Your task to perform on an android device: Open Google Chrome and open the bookmarks view Image 0: 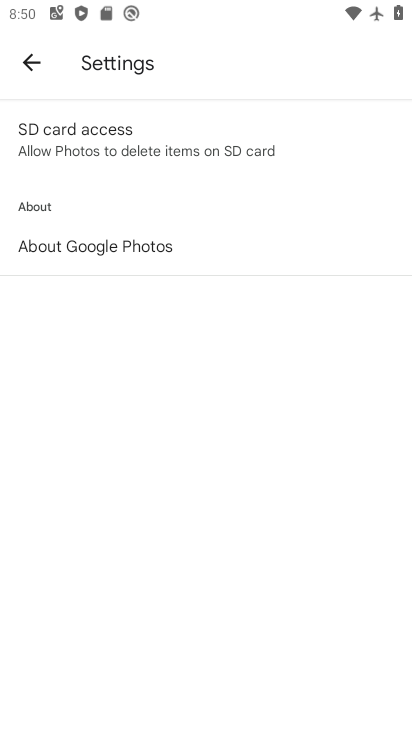
Step 0: press home button
Your task to perform on an android device: Open Google Chrome and open the bookmarks view Image 1: 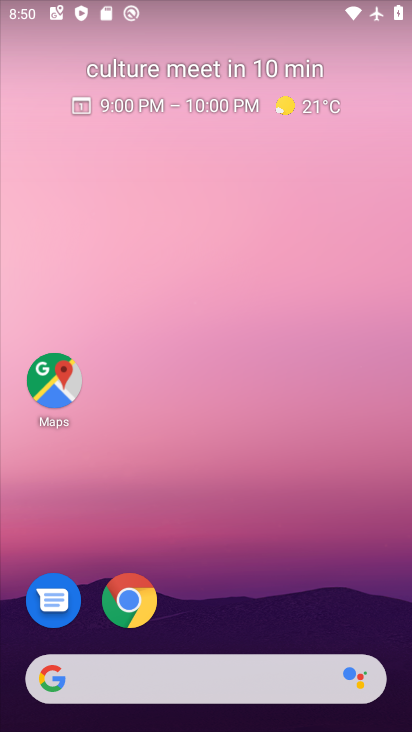
Step 1: click (129, 604)
Your task to perform on an android device: Open Google Chrome and open the bookmarks view Image 2: 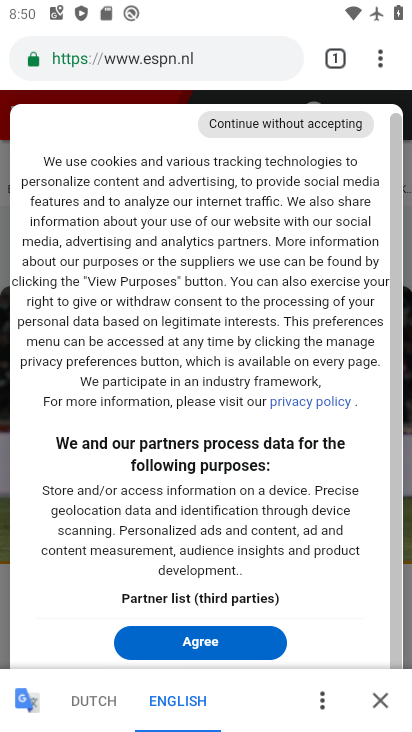
Step 2: click (380, 64)
Your task to perform on an android device: Open Google Chrome and open the bookmarks view Image 3: 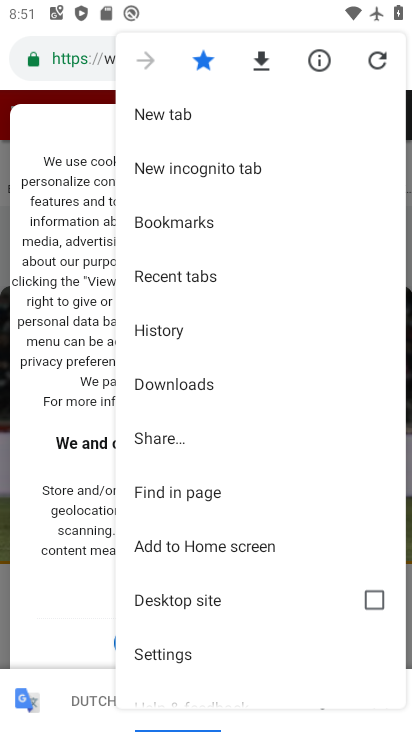
Step 3: click (166, 220)
Your task to perform on an android device: Open Google Chrome and open the bookmarks view Image 4: 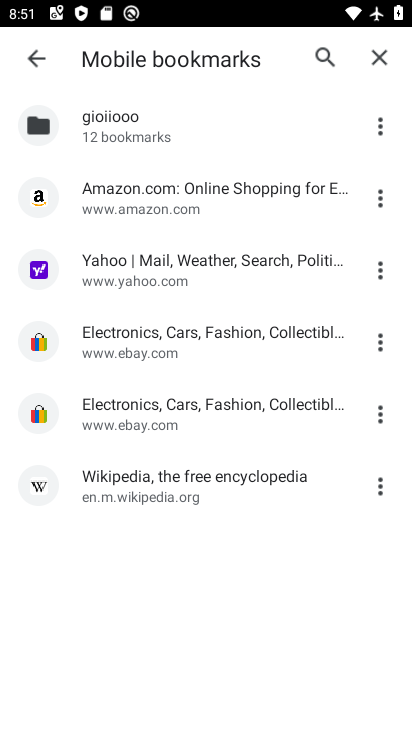
Step 4: task complete